Your task to perform on an android device: turn off smart reply in the gmail app Image 0: 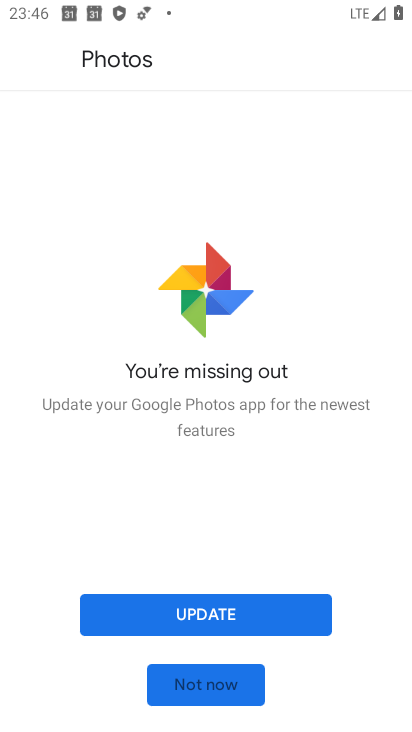
Step 0: press home button
Your task to perform on an android device: turn off smart reply in the gmail app Image 1: 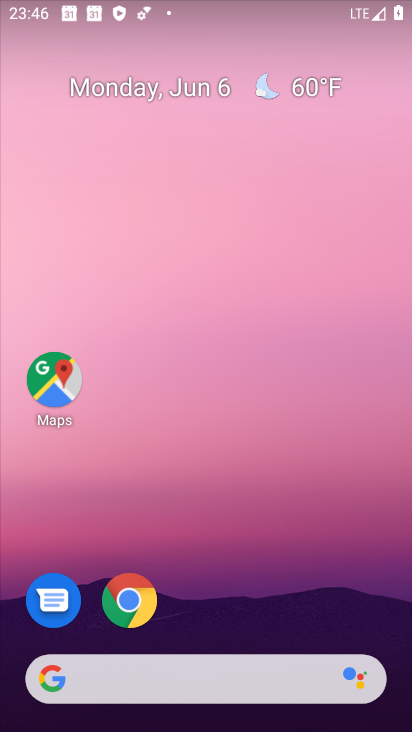
Step 1: drag from (243, 715) to (229, 202)
Your task to perform on an android device: turn off smart reply in the gmail app Image 2: 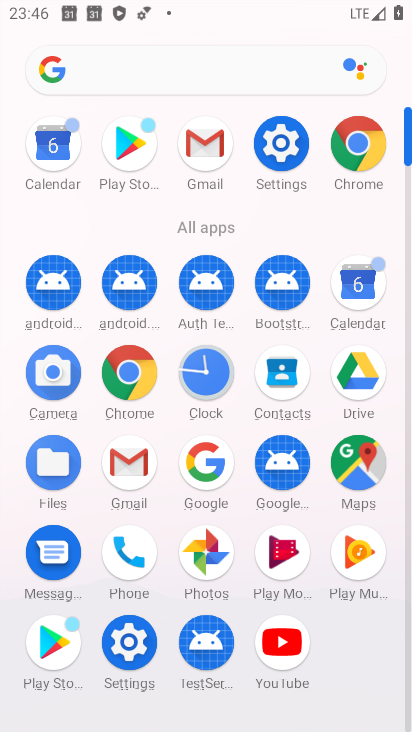
Step 2: click (129, 459)
Your task to perform on an android device: turn off smart reply in the gmail app Image 3: 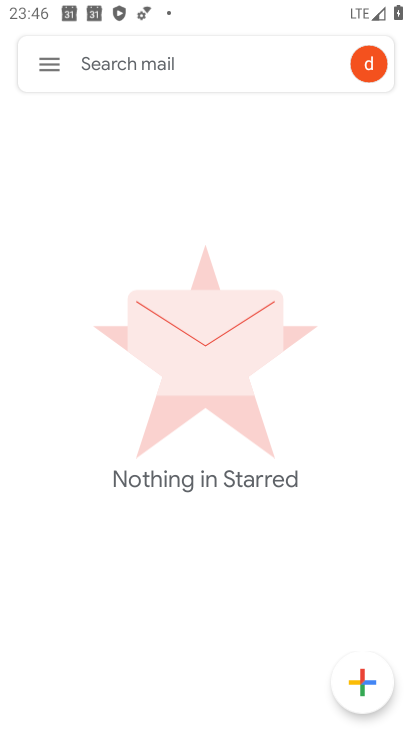
Step 3: click (41, 62)
Your task to perform on an android device: turn off smart reply in the gmail app Image 4: 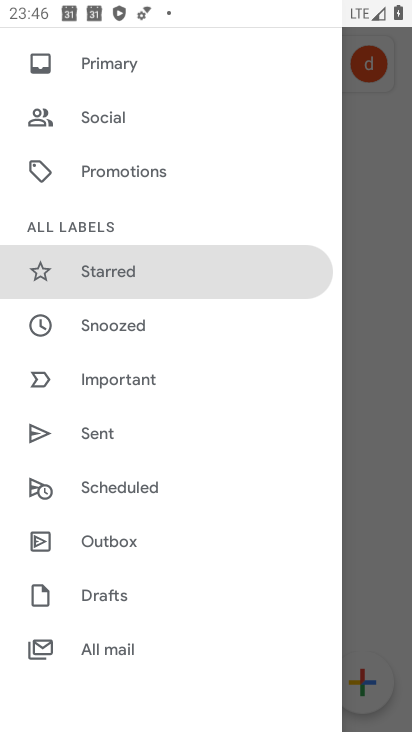
Step 4: drag from (134, 659) to (129, 276)
Your task to perform on an android device: turn off smart reply in the gmail app Image 5: 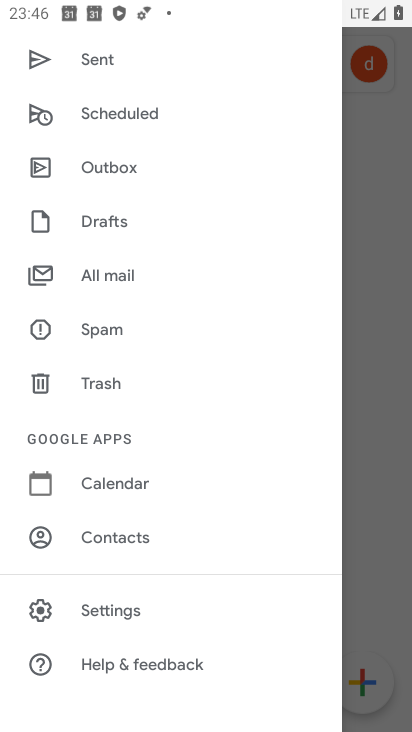
Step 5: click (110, 604)
Your task to perform on an android device: turn off smart reply in the gmail app Image 6: 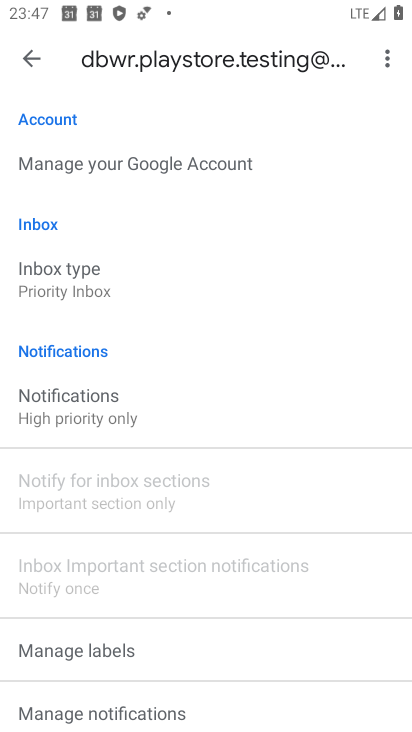
Step 6: drag from (150, 666) to (136, 405)
Your task to perform on an android device: turn off smart reply in the gmail app Image 7: 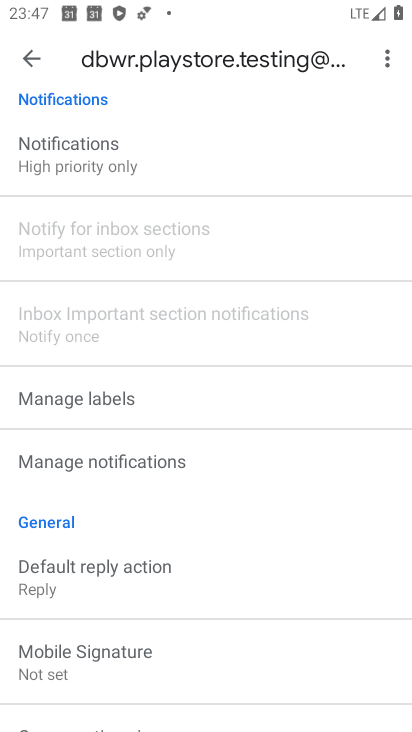
Step 7: drag from (150, 662) to (141, 260)
Your task to perform on an android device: turn off smart reply in the gmail app Image 8: 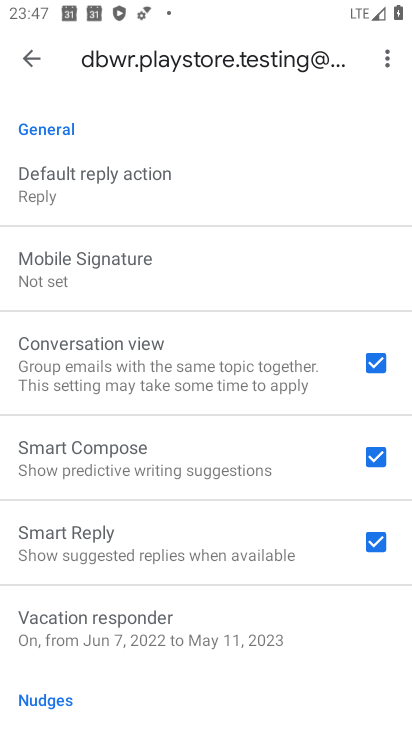
Step 8: click (377, 454)
Your task to perform on an android device: turn off smart reply in the gmail app Image 9: 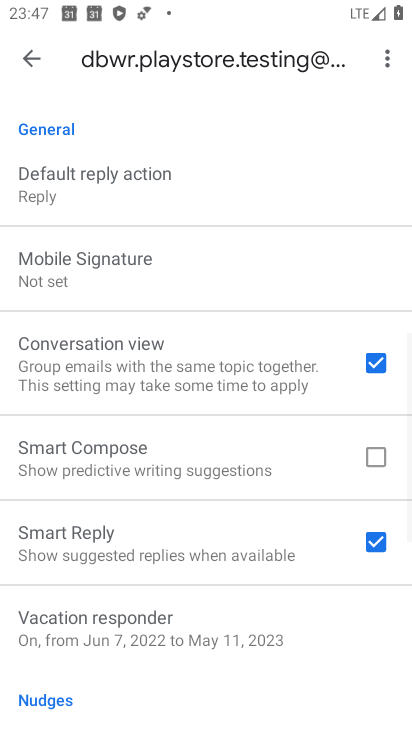
Step 9: task complete